Your task to perform on an android device: toggle show notifications on the lock screen Image 0: 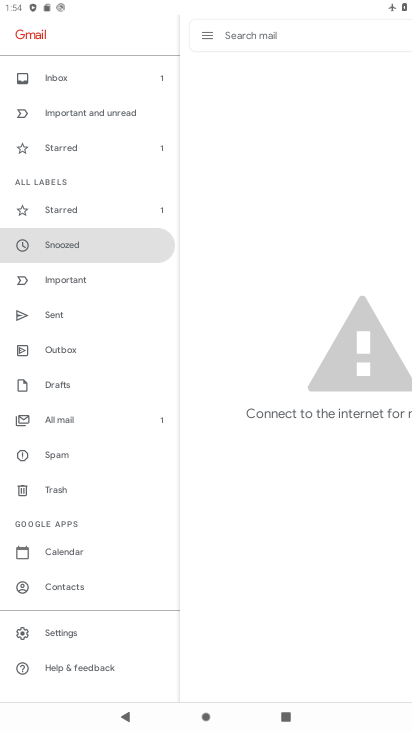
Step 0: press home button
Your task to perform on an android device: toggle show notifications on the lock screen Image 1: 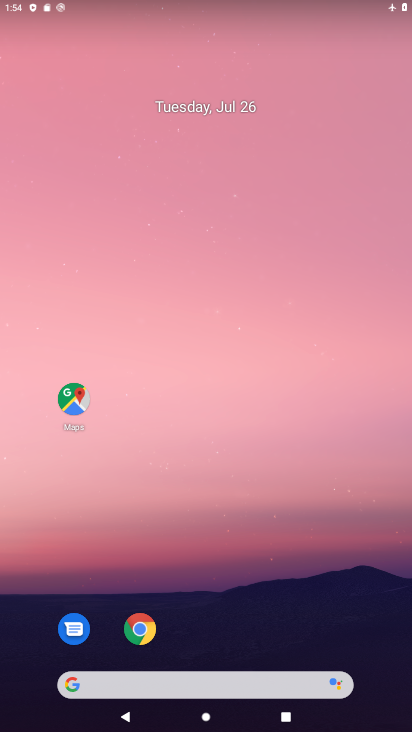
Step 1: drag from (186, 692) to (333, 49)
Your task to perform on an android device: toggle show notifications on the lock screen Image 2: 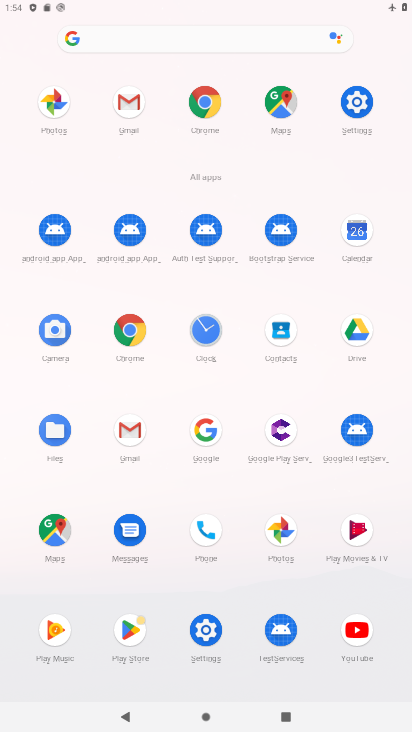
Step 2: click (353, 103)
Your task to perform on an android device: toggle show notifications on the lock screen Image 3: 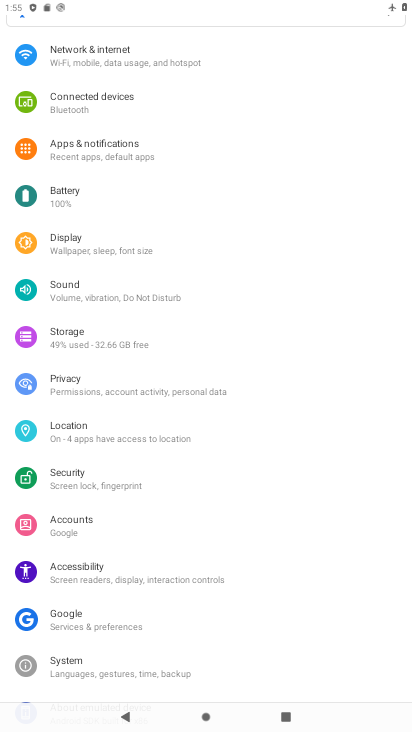
Step 3: click (70, 381)
Your task to perform on an android device: toggle show notifications on the lock screen Image 4: 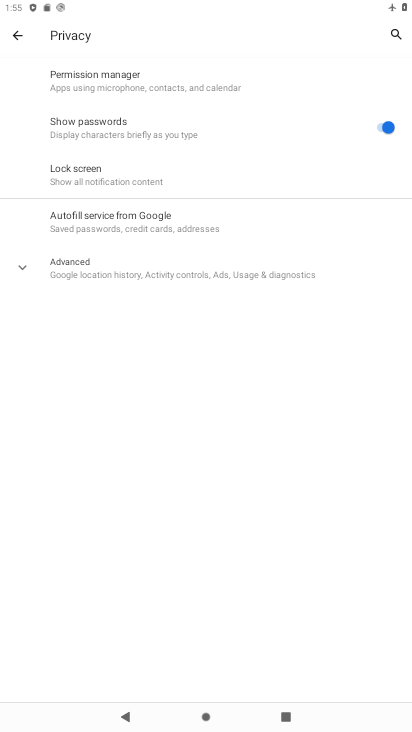
Step 4: click (84, 173)
Your task to perform on an android device: toggle show notifications on the lock screen Image 5: 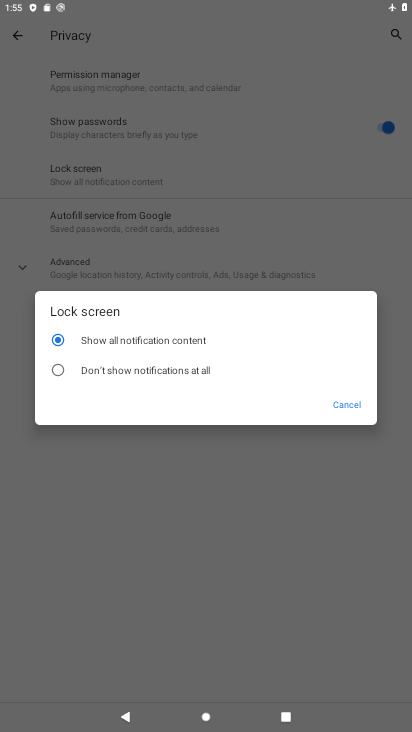
Step 5: click (161, 361)
Your task to perform on an android device: toggle show notifications on the lock screen Image 6: 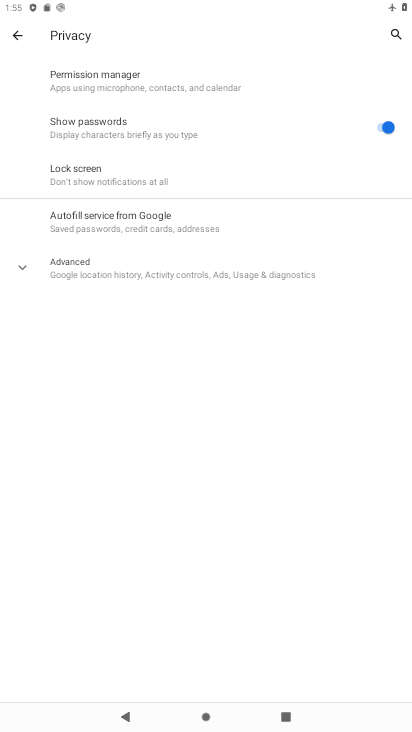
Step 6: task complete